Your task to perform on an android device: change the clock display to show seconds Image 0: 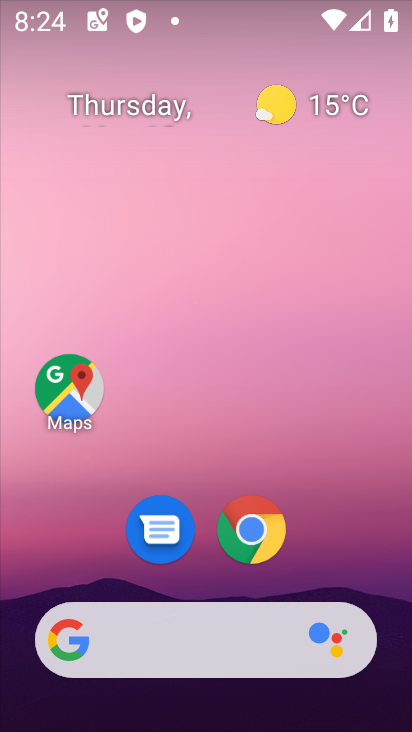
Step 0: drag from (139, 690) to (141, 0)
Your task to perform on an android device: change the clock display to show seconds Image 1: 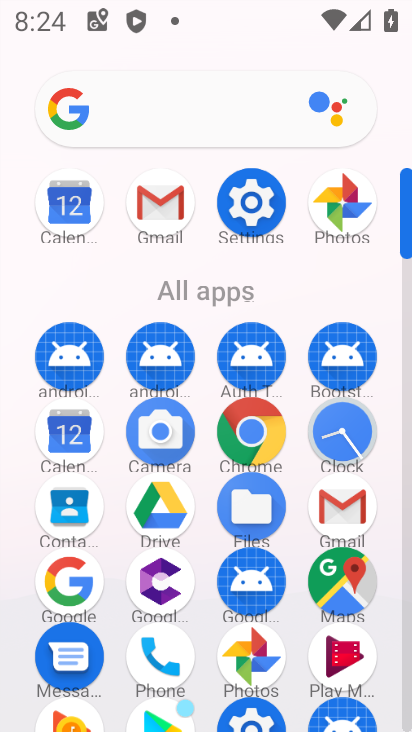
Step 1: click (345, 432)
Your task to perform on an android device: change the clock display to show seconds Image 2: 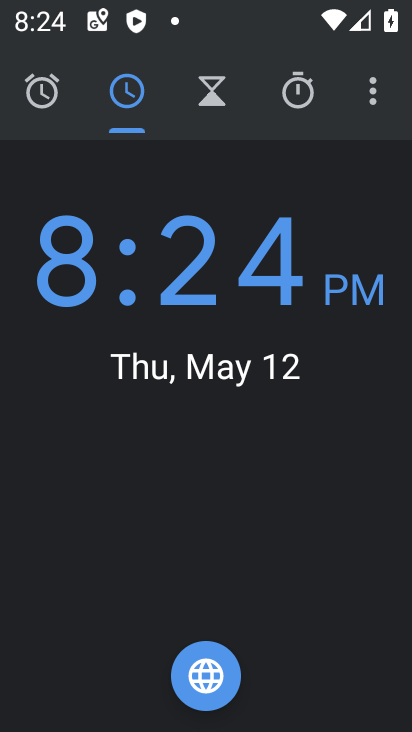
Step 2: click (373, 92)
Your task to perform on an android device: change the clock display to show seconds Image 3: 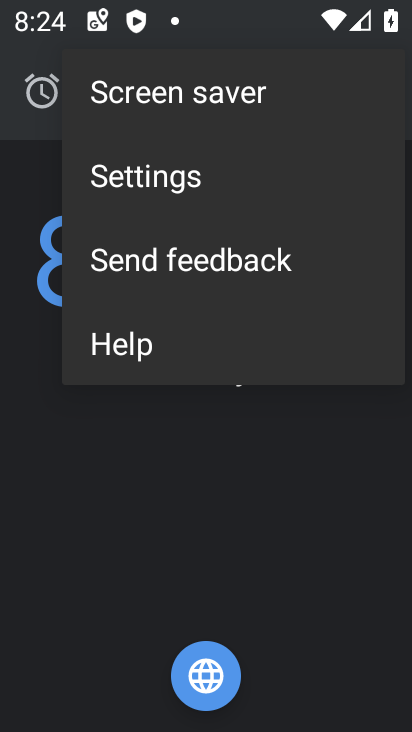
Step 3: click (219, 189)
Your task to perform on an android device: change the clock display to show seconds Image 4: 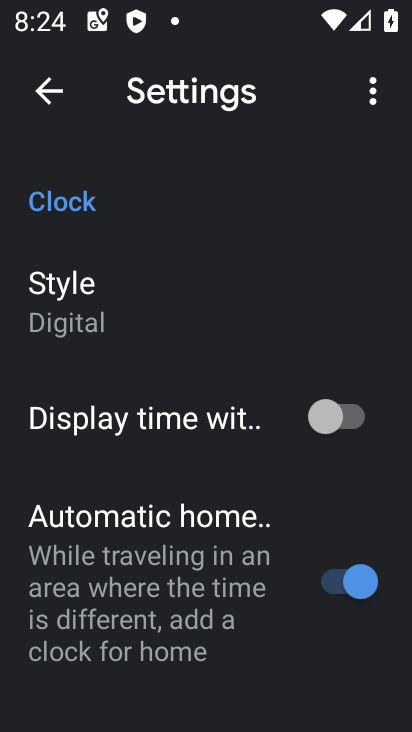
Step 4: click (323, 418)
Your task to perform on an android device: change the clock display to show seconds Image 5: 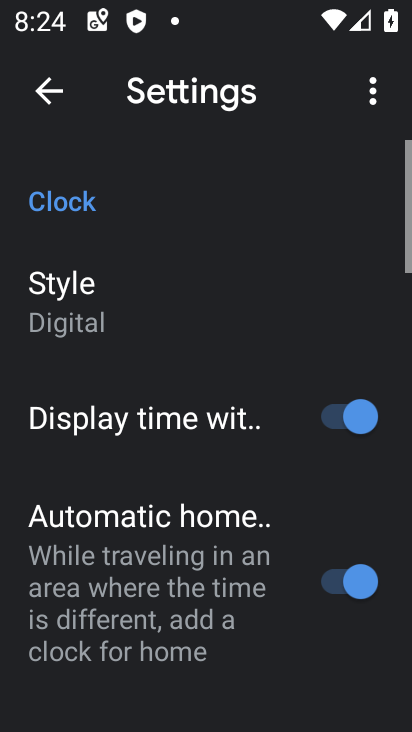
Step 5: task complete